Your task to perform on an android device: turn off location history Image 0: 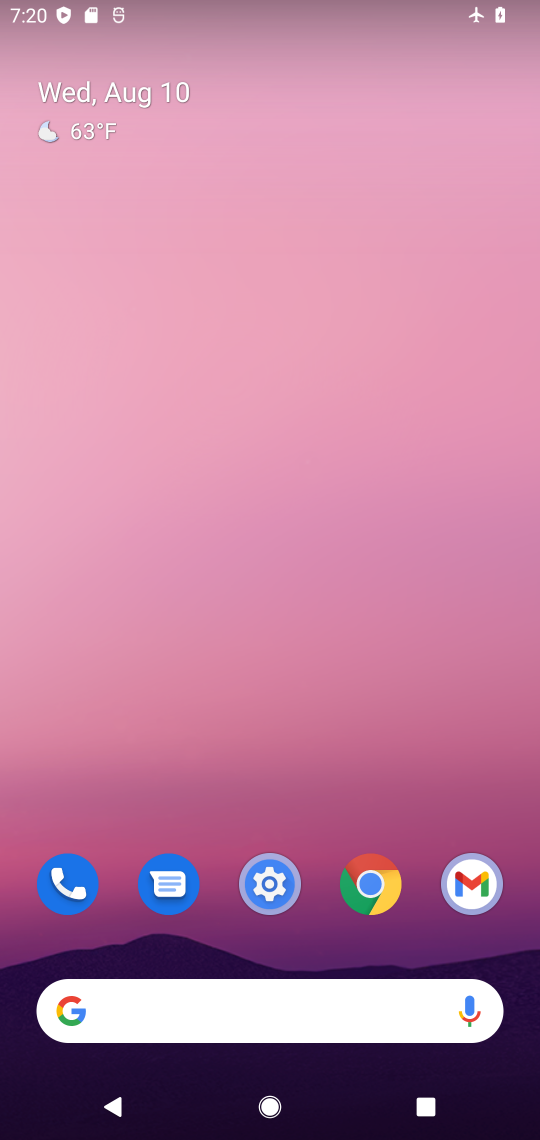
Step 0: click (271, 874)
Your task to perform on an android device: turn off location history Image 1: 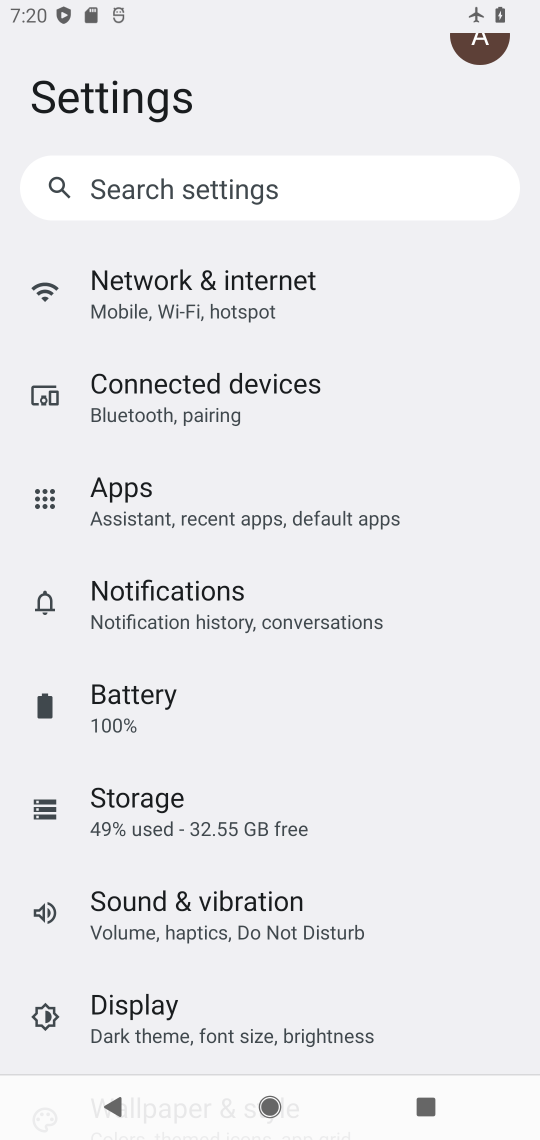
Step 1: drag from (350, 951) to (402, 180)
Your task to perform on an android device: turn off location history Image 2: 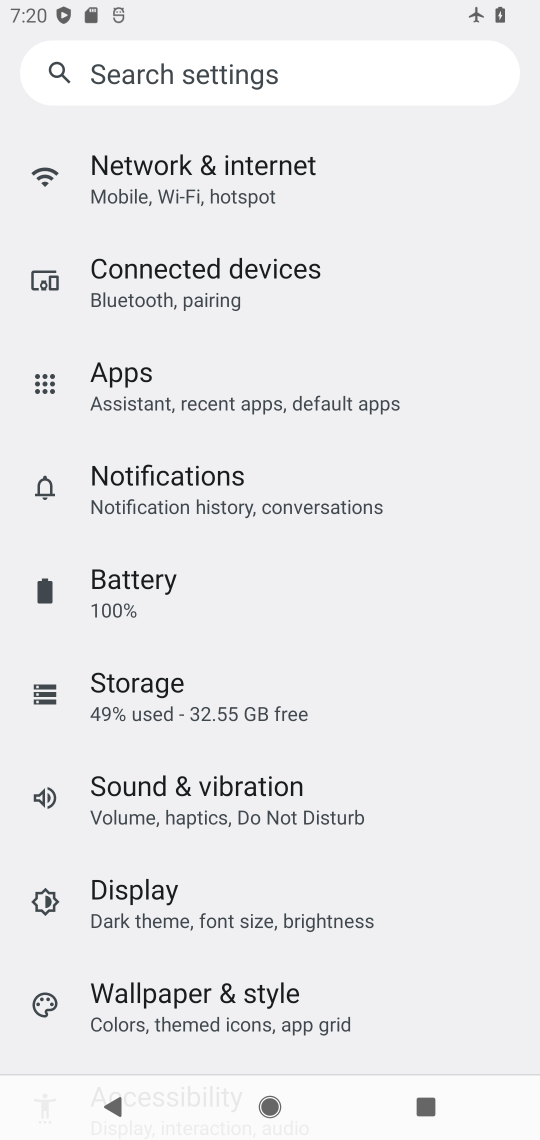
Step 2: drag from (404, 1007) to (379, 468)
Your task to perform on an android device: turn off location history Image 3: 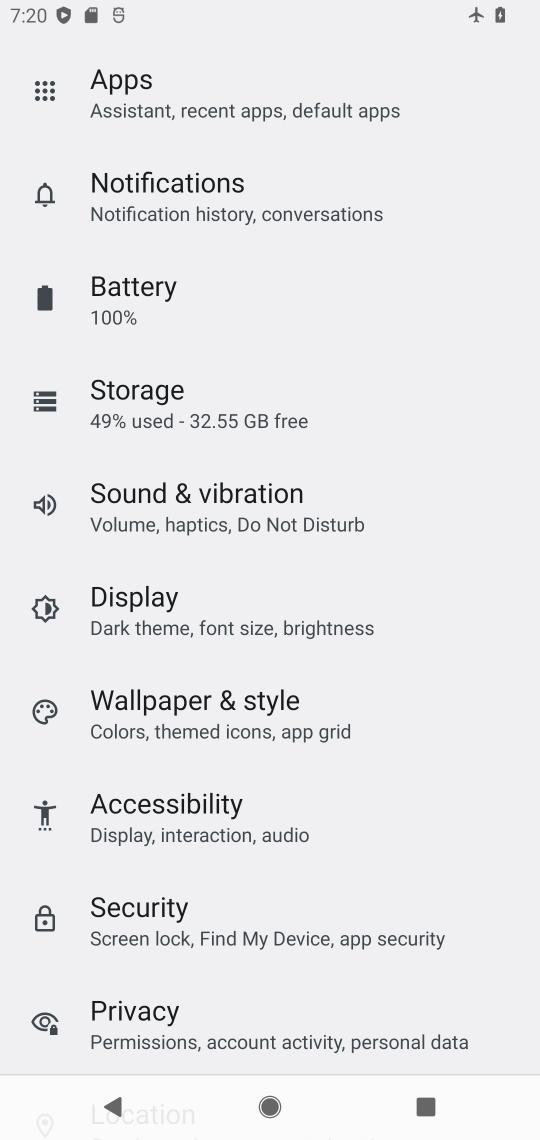
Step 3: drag from (361, 870) to (307, 502)
Your task to perform on an android device: turn off location history Image 4: 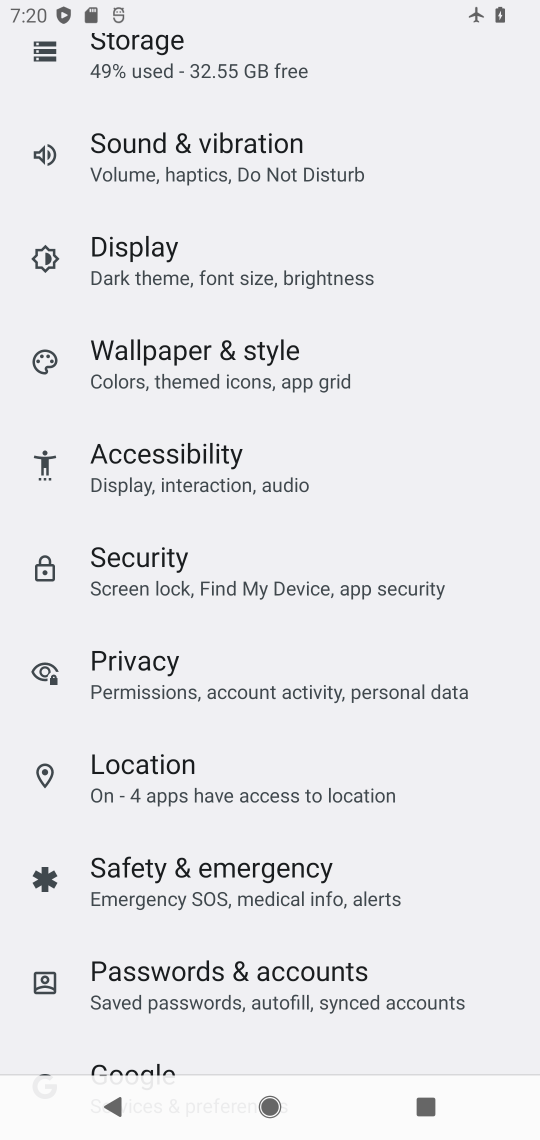
Step 4: click (148, 764)
Your task to perform on an android device: turn off location history Image 5: 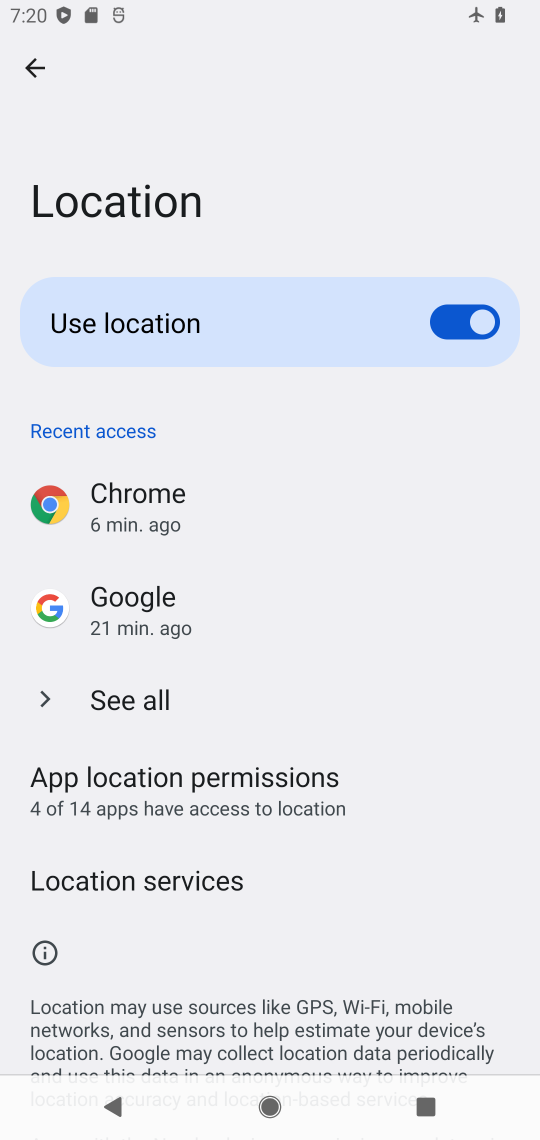
Step 5: click (124, 876)
Your task to perform on an android device: turn off location history Image 6: 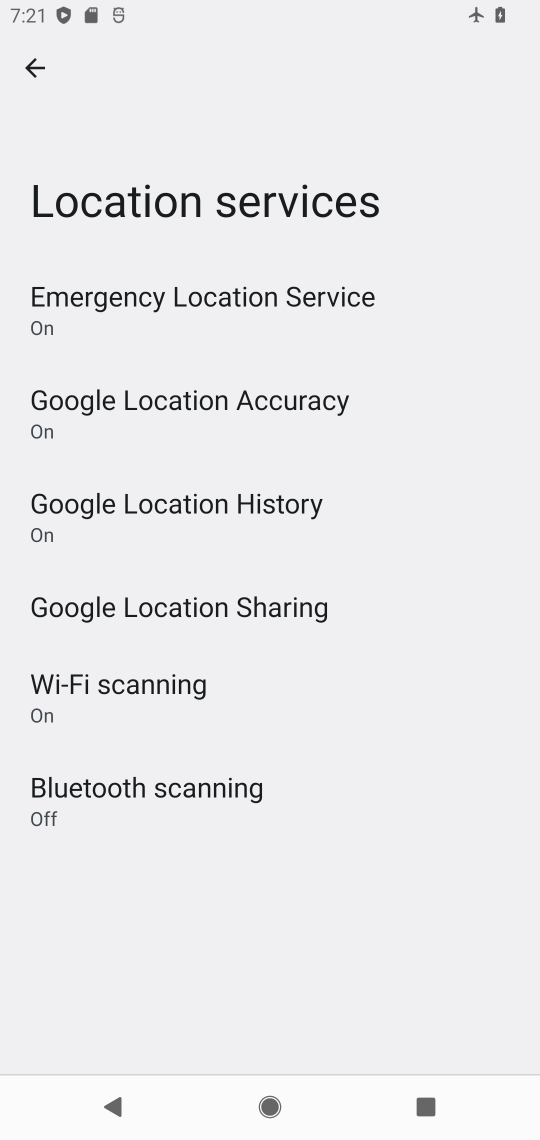
Step 6: click (136, 492)
Your task to perform on an android device: turn off location history Image 7: 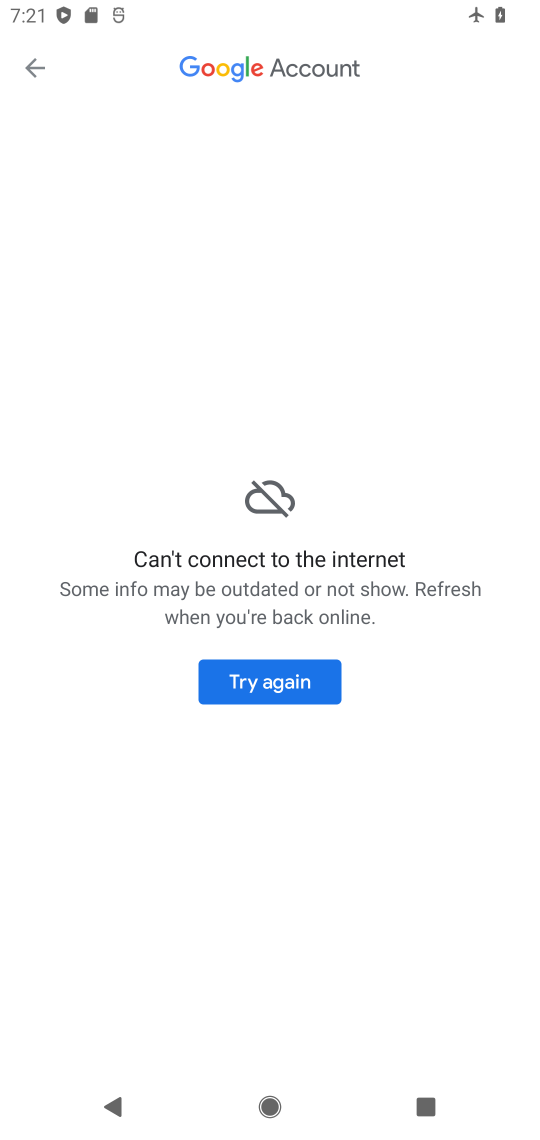
Step 7: click (270, 672)
Your task to perform on an android device: turn off location history Image 8: 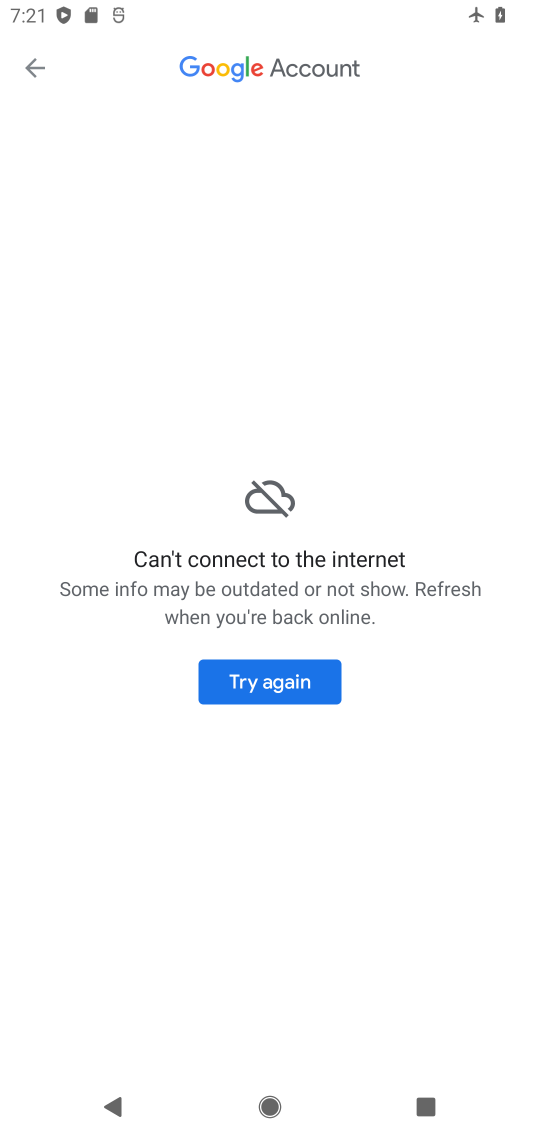
Step 8: task complete